Your task to perform on an android device: stop showing notifications on the lock screen Image 0: 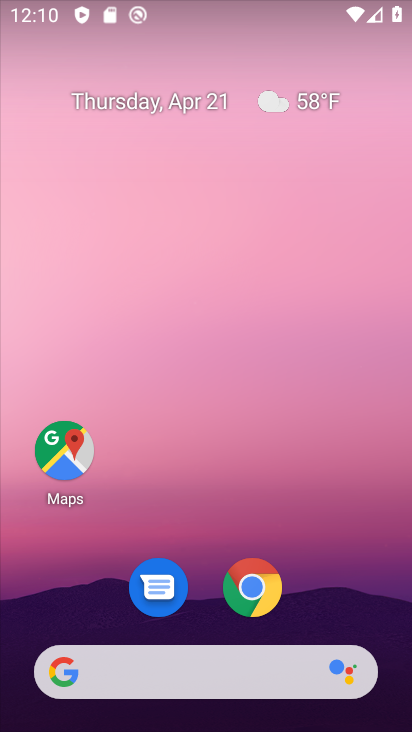
Step 0: drag from (281, 541) to (363, 67)
Your task to perform on an android device: stop showing notifications on the lock screen Image 1: 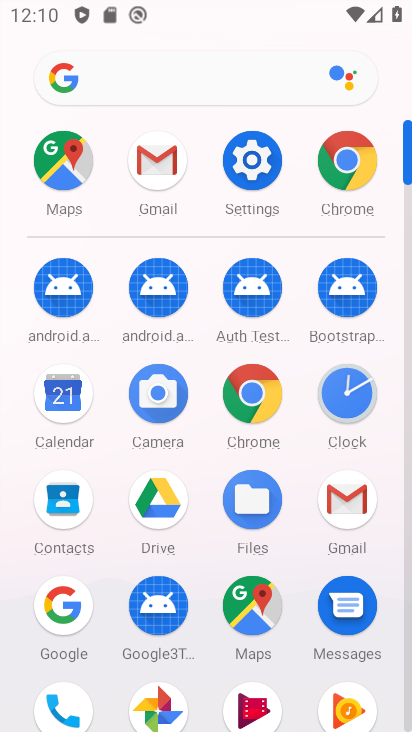
Step 1: click (258, 177)
Your task to perform on an android device: stop showing notifications on the lock screen Image 2: 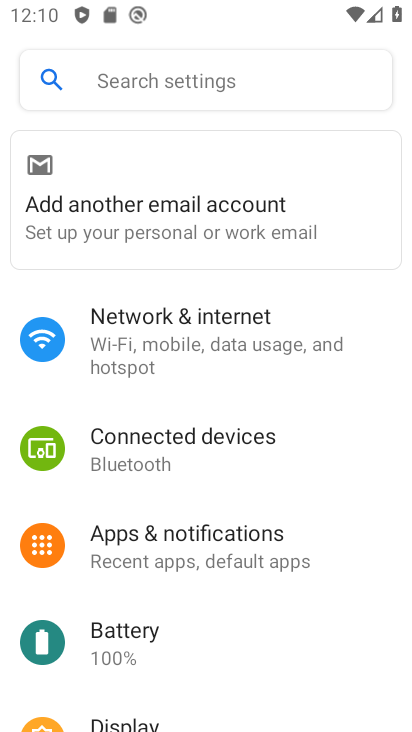
Step 2: click (202, 548)
Your task to perform on an android device: stop showing notifications on the lock screen Image 3: 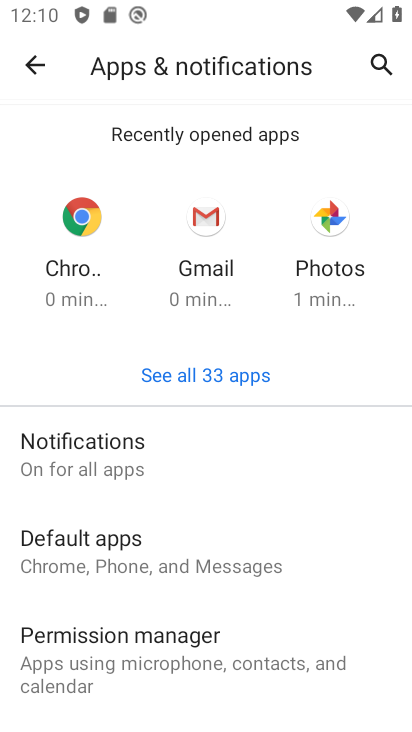
Step 3: click (106, 474)
Your task to perform on an android device: stop showing notifications on the lock screen Image 4: 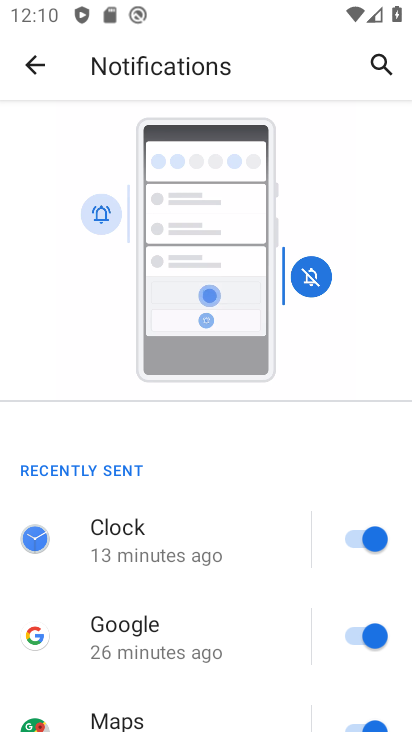
Step 4: drag from (155, 552) to (260, 212)
Your task to perform on an android device: stop showing notifications on the lock screen Image 5: 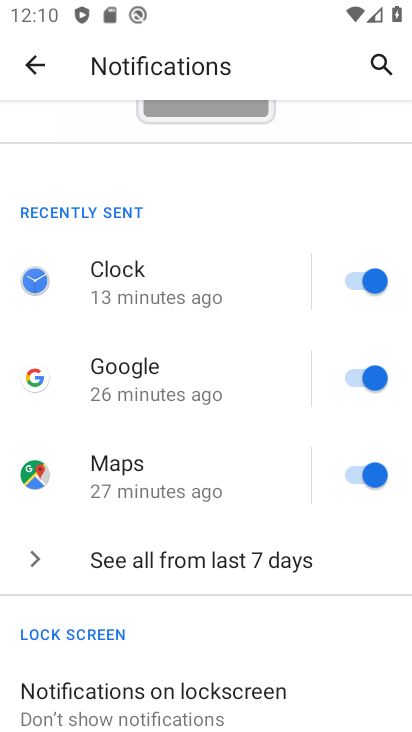
Step 5: drag from (158, 613) to (199, 439)
Your task to perform on an android device: stop showing notifications on the lock screen Image 6: 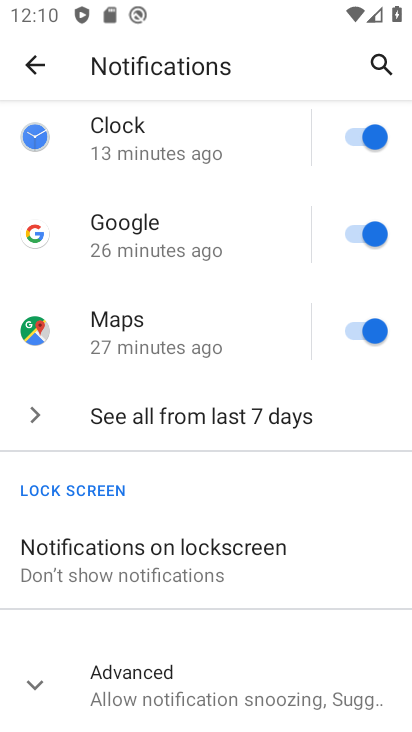
Step 6: click (140, 565)
Your task to perform on an android device: stop showing notifications on the lock screen Image 7: 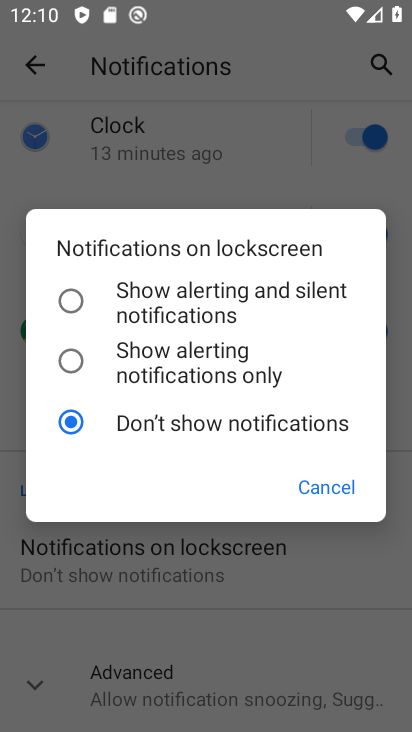
Step 7: task complete